Your task to perform on an android device: Open wifi settings Image 0: 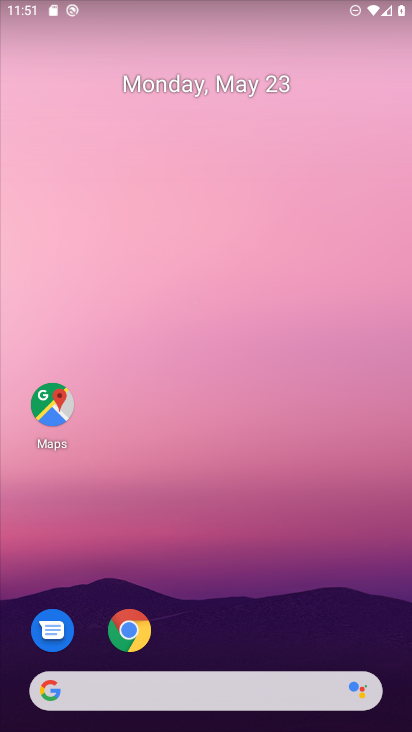
Step 0: drag from (227, 615) to (305, 273)
Your task to perform on an android device: Open wifi settings Image 1: 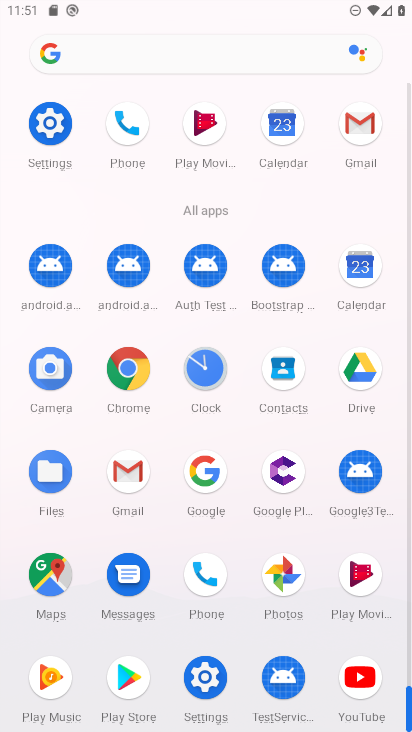
Step 1: click (50, 119)
Your task to perform on an android device: Open wifi settings Image 2: 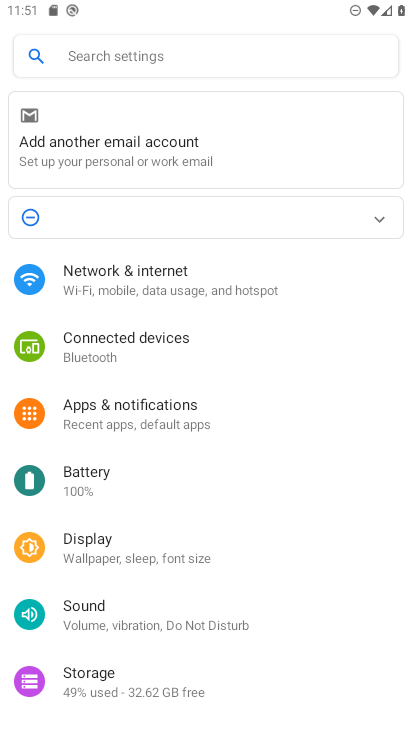
Step 2: click (132, 297)
Your task to perform on an android device: Open wifi settings Image 3: 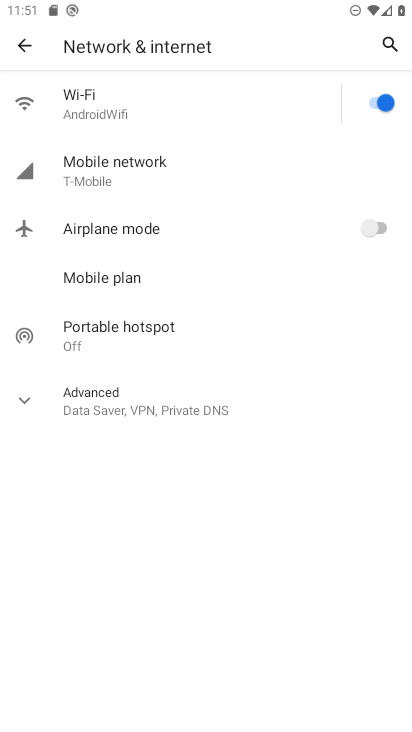
Step 3: click (119, 97)
Your task to perform on an android device: Open wifi settings Image 4: 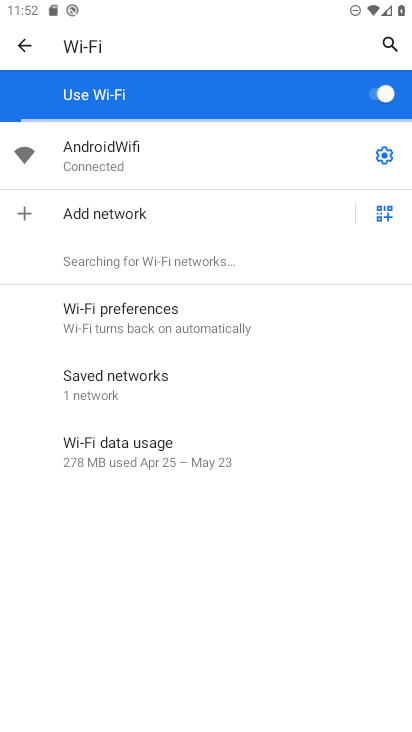
Step 4: task complete